Your task to perform on an android device: turn off location Image 0: 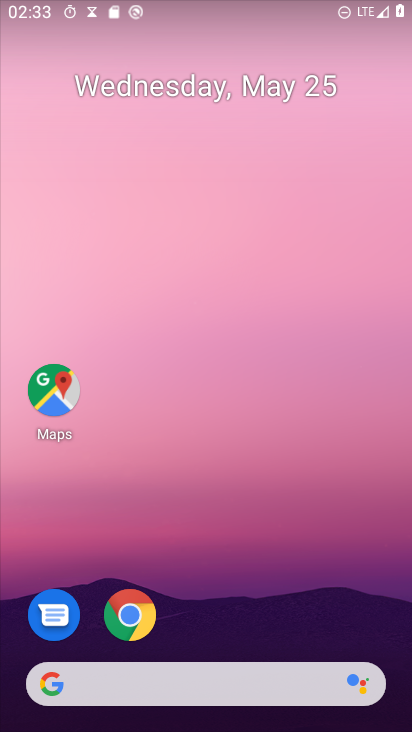
Step 0: drag from (322, 600) to (269, 38)
Your task to perform on an android device: turn off location Image 1: 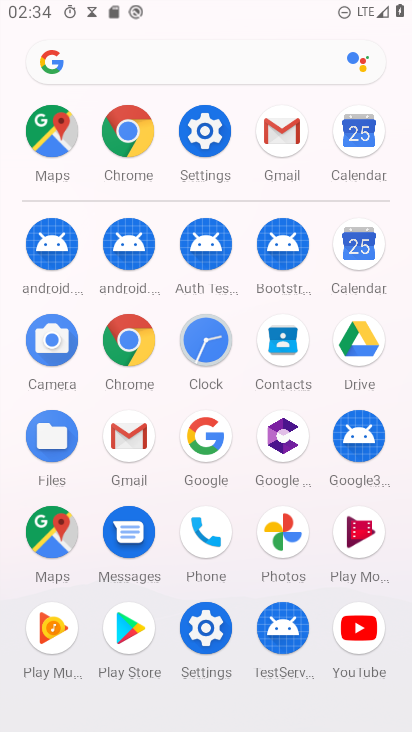
Step 1: click (200, 126)
Your task to perform on an android device: turn off location Image 2: 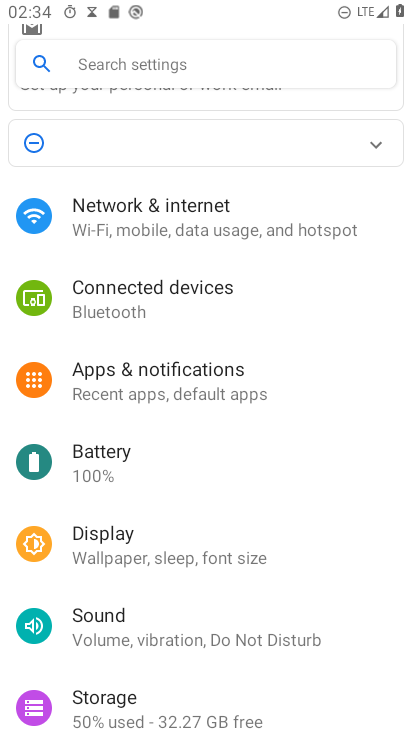
Step 2: click (254, 65)
Your task to perform on an android device: turn off location Image 3: 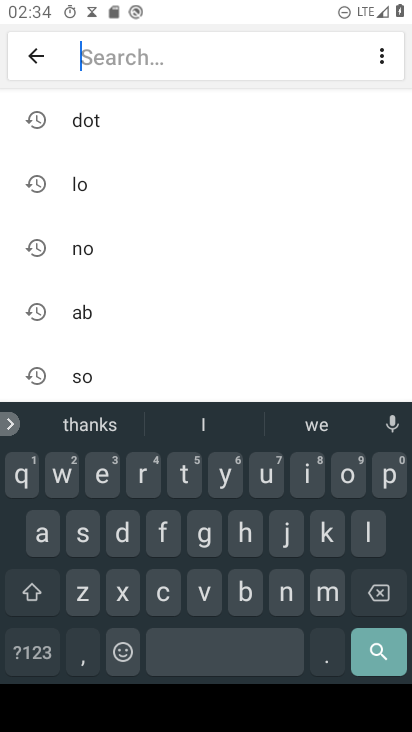
Step 3: click (370, 536)
Your task to perform on an android device: turn off location Image 4: 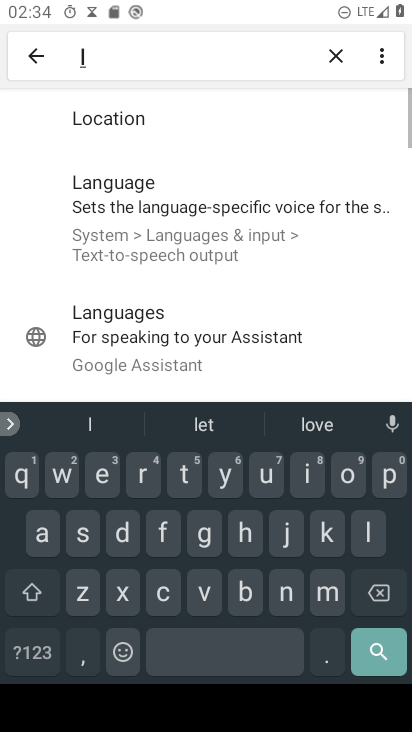
Step 4: click (354, 474)
Your task to perform on an android device: turn off location Image 5: 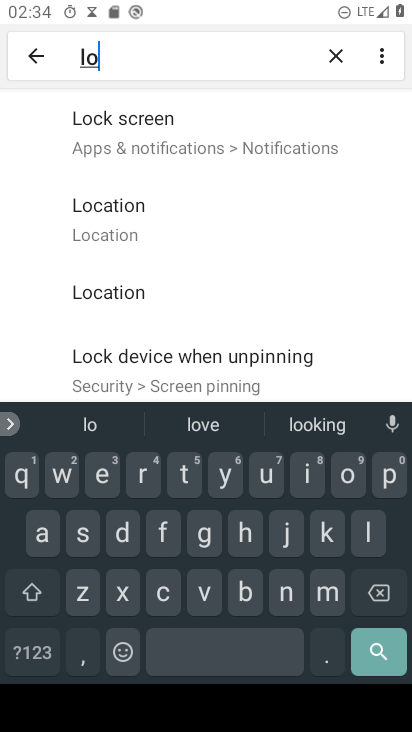
Step 5: click (162, 225)
Your task to perform on an android device: turn off location Image 6: 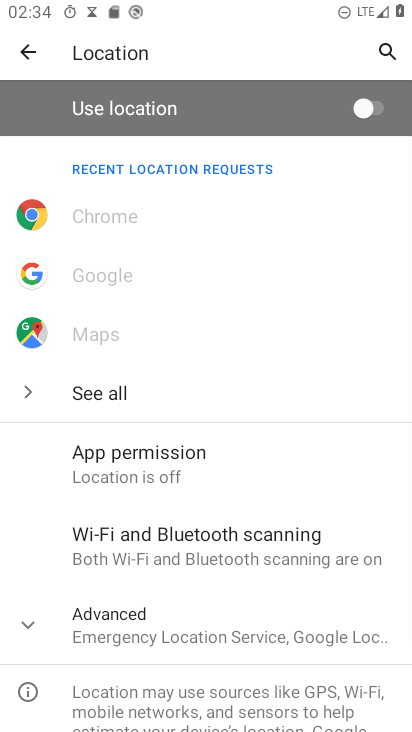
Step 6: task complete